Your task to perform on an android device: change timer sound Image 0: 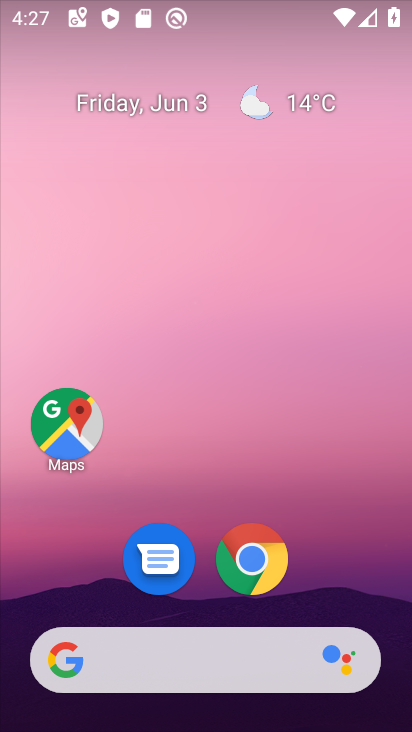
Step 0: drag from (333, 593) to (343, 181)
Your task to perform on an android device: change timer sound Image 1: 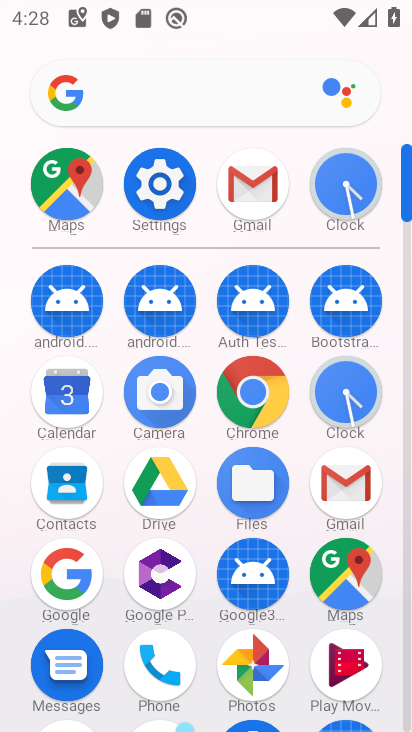
Step 1: click (162, 183)
Your task to perform on an android device: change timer sound Image 2: 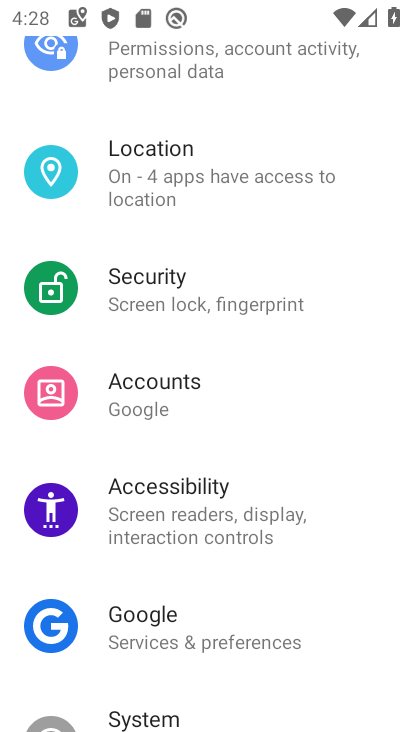
Step 2: drag from (273, 200) to (248, 624)
Your task to perform on an android device: change timer sound Image 3: 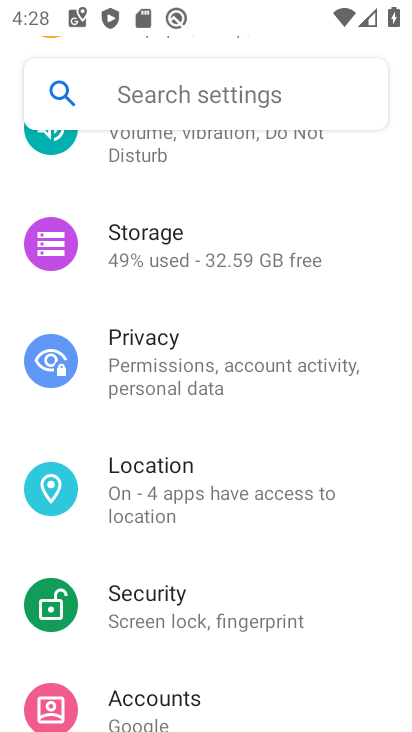
Step 3: drag from (254, 299) to (215, 517)
Your task to perform on an android device: change timer sound Image 4: 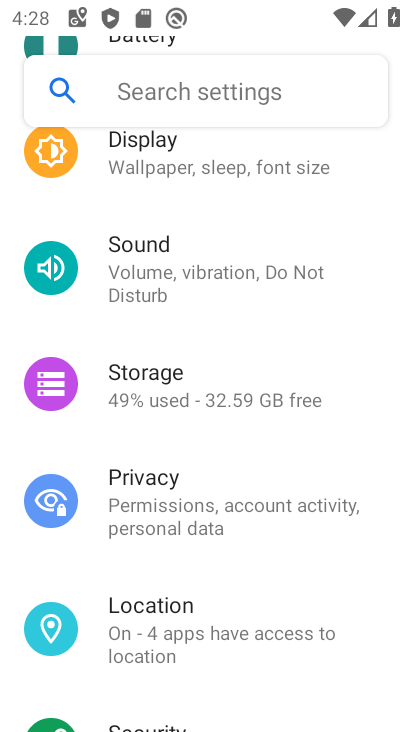
Step 4: drag from (242, 165) to (191, 479)
Your task to perform on an android device: change timer sound Image 5: 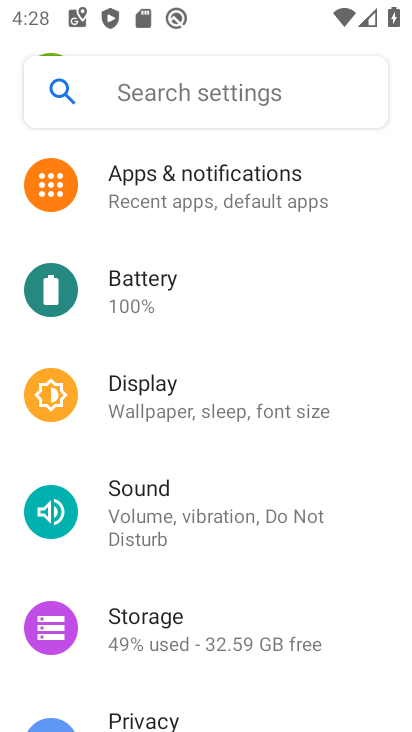
Step 5: click (137, 499)
Your task to perform on an android device: change timer sound Image 6: 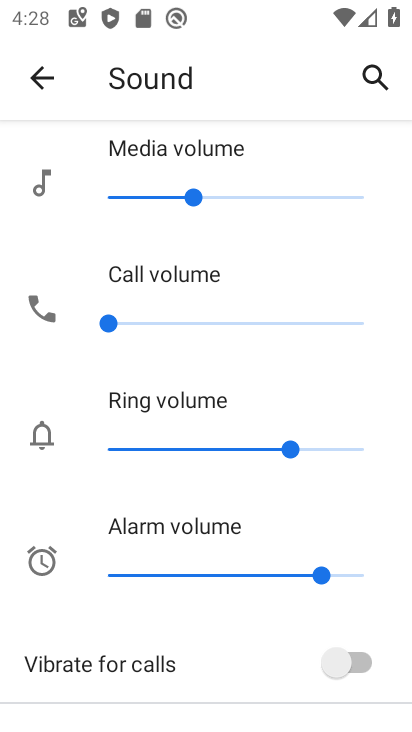
Step 6: task complete